Your task to perform on an android device: Go to CNN.com Image 0: 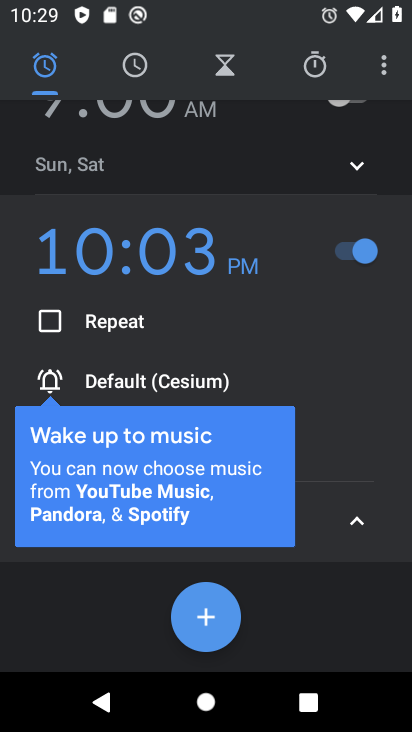
Step 0: press home button
Your task to perform on an android device: Go to CNN.com Image 1: 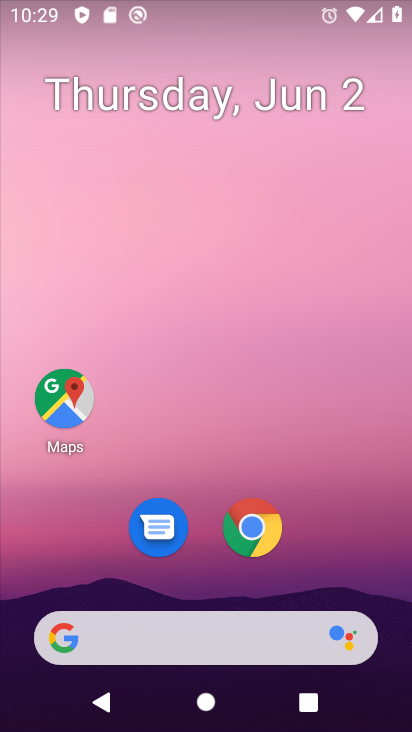
Step 1: click (263, 528)
Your task to perform on an android device: Go to CNN.com Image 2: 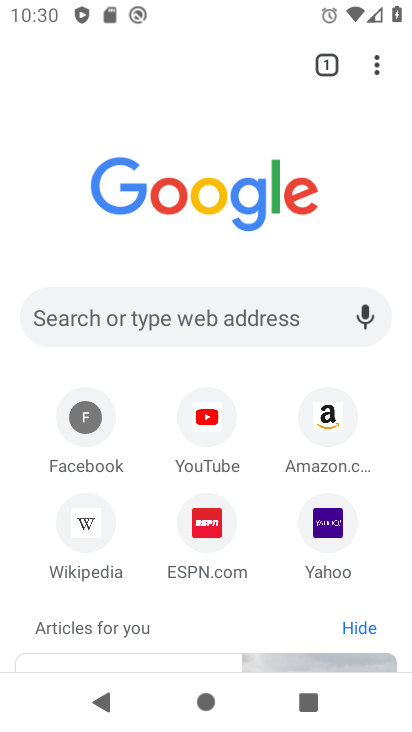
Step 2: click (218, 314)
Your task to perform on an android device: Go to CNN.com Image 3: 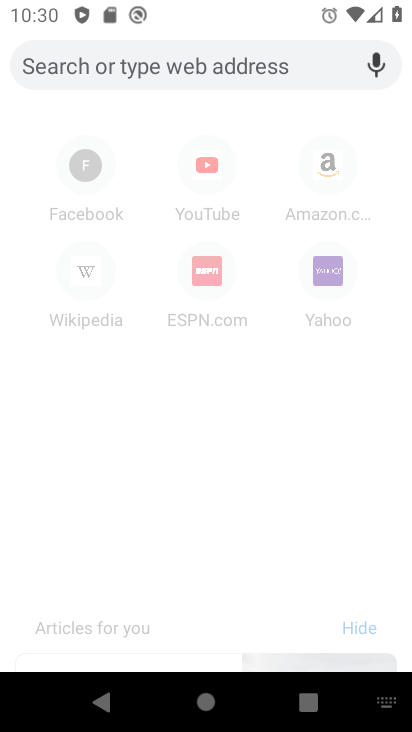
Step 3: type "cnn.com"
Your task to perform on an android device: Go to CNN.com Image 4: 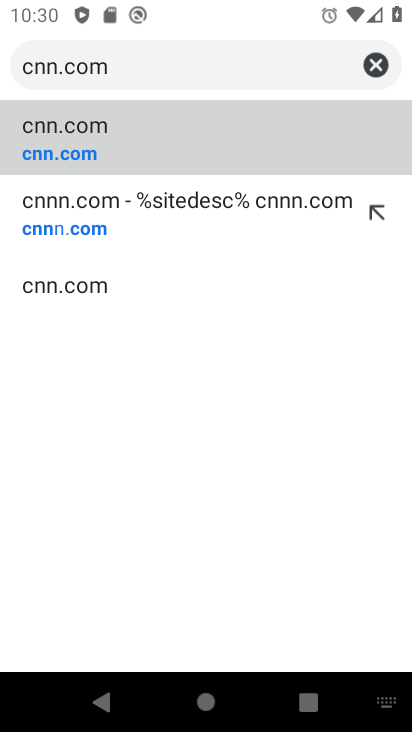
Step 4: click (147, 147)
Your task to perform on an android device: Go to CNN.com Image 5: 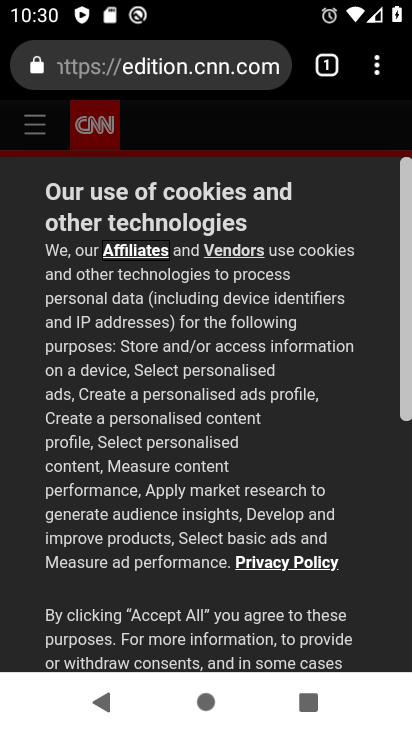
Step 5: task complete